Your task to perform on an android device: uninstall "Duolingo: language lessons" Image 0: 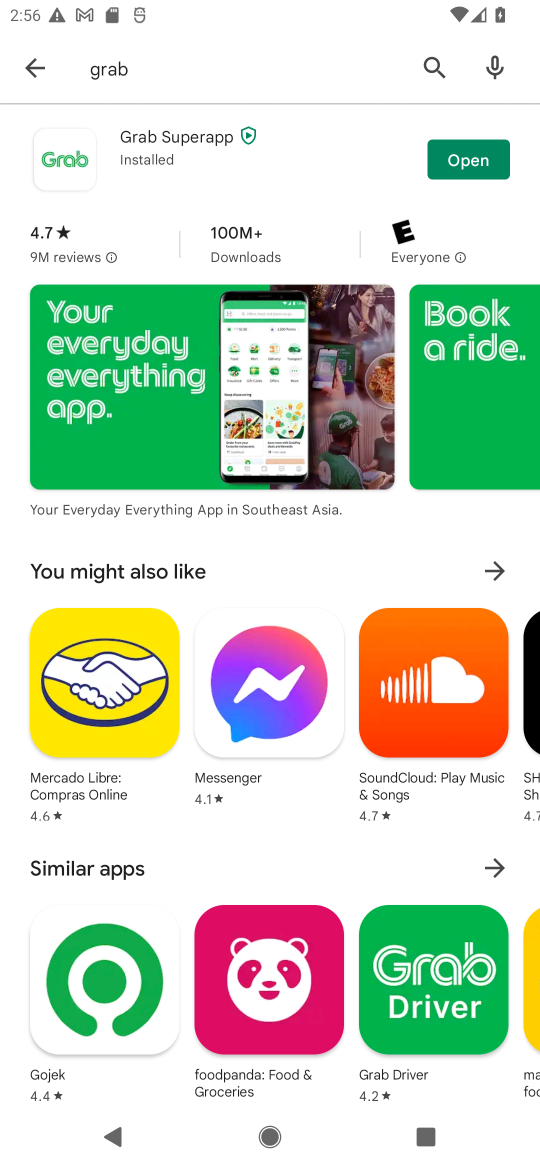
Step 0: click (125, 78)
Your task to perform on an android device: uninstall "Duolingo: language lessons" Image 1: 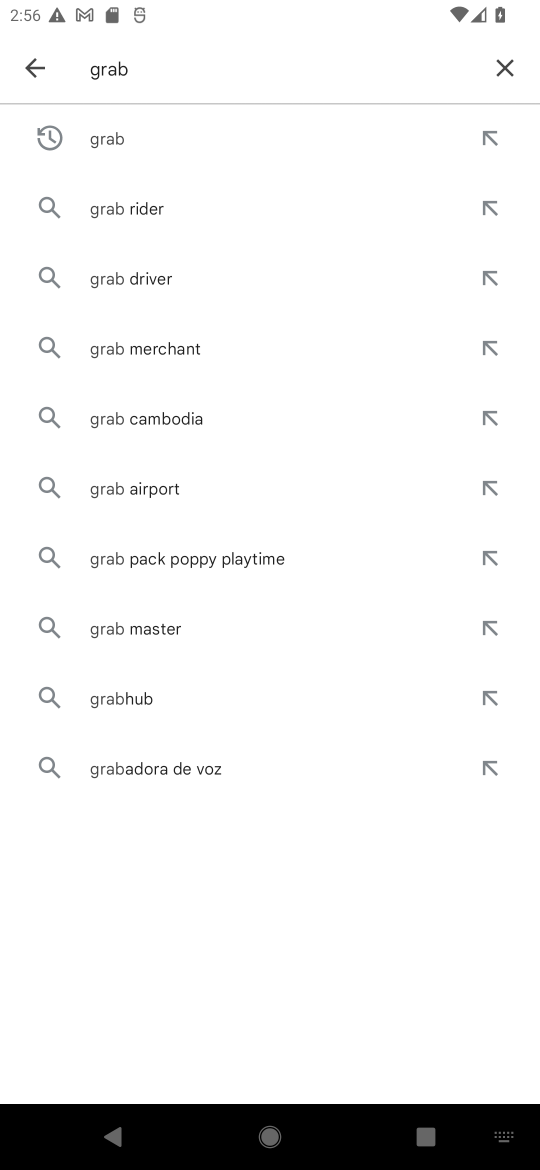
Step 1: click (503, 70)
Your task to perform on an android device: uninstall "Duolingo: language lessons" Image 2: 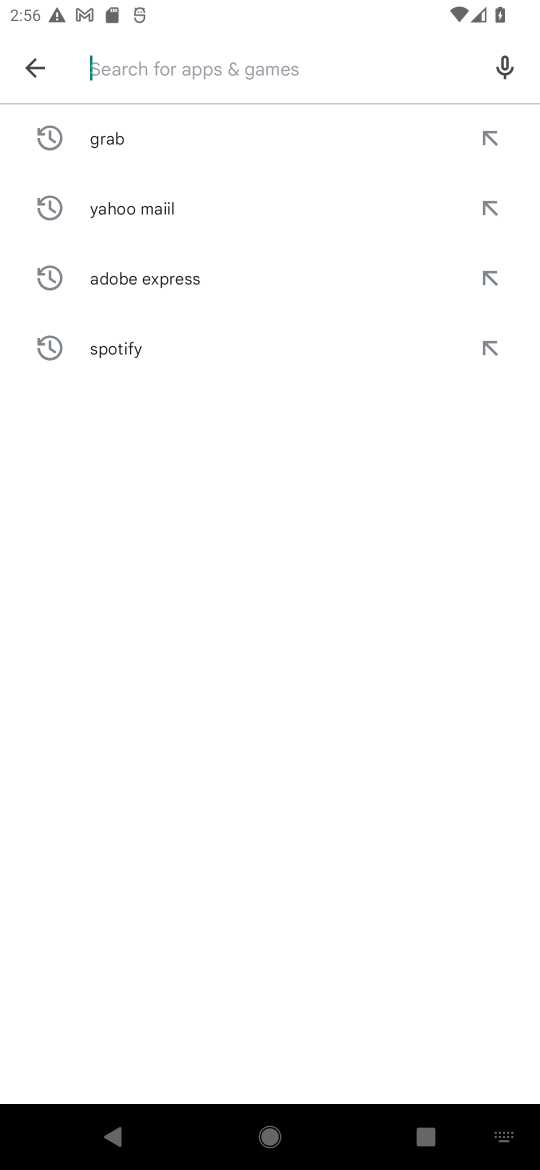
Step 2: type "Duolingo"
Your task to perform on an android device: uninstall "Duolingo: language lessons" Image 3: 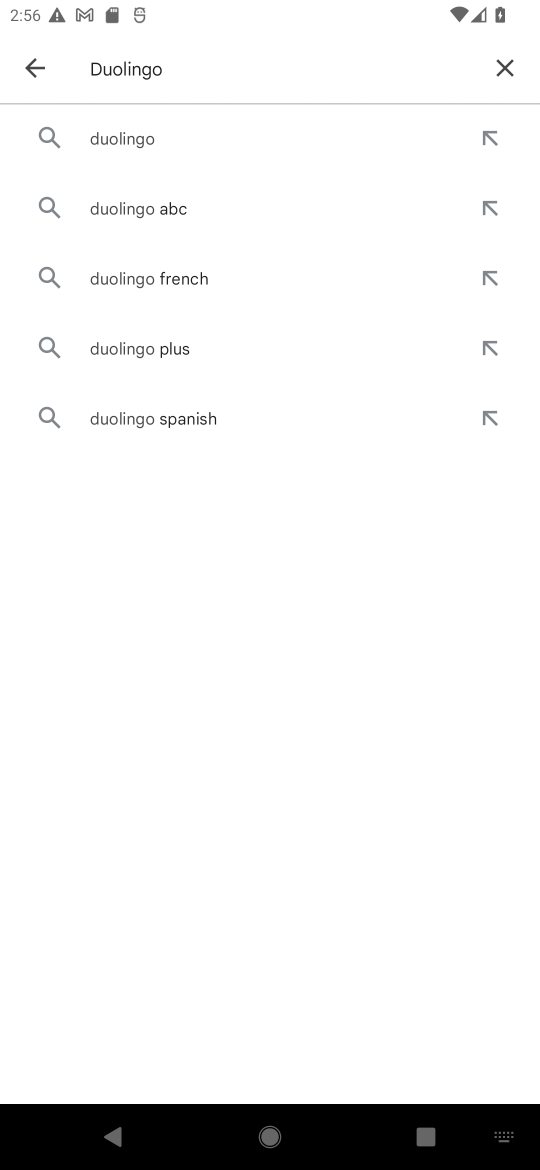
Step 3: click (202, 167)
Your task to perform on an android device: uninstall "Duolingo: language lessons" Image 4: 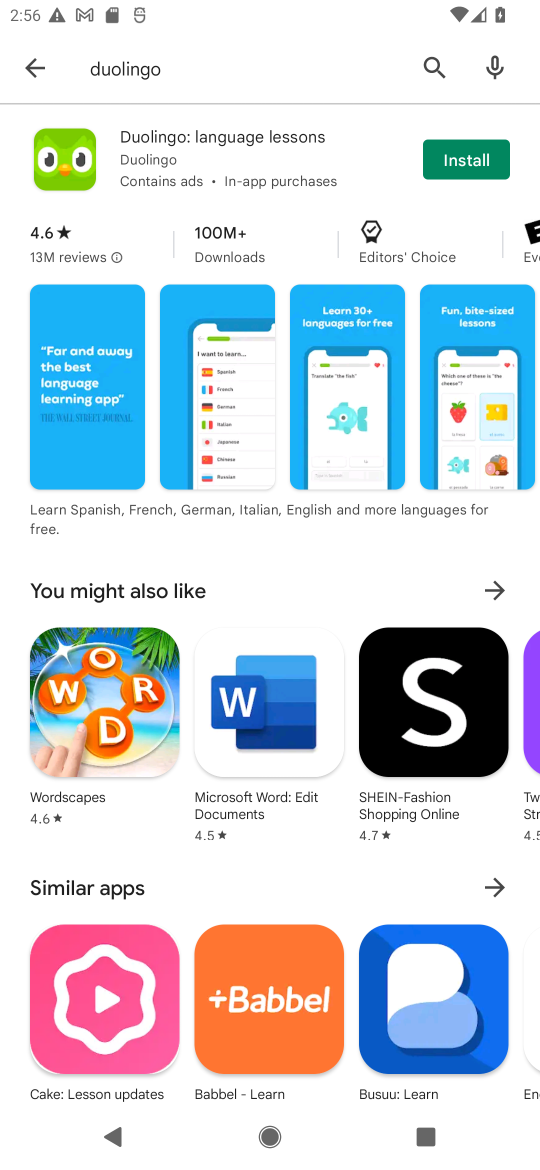
Step 4: task complete